Your task to perform on an android device: Toggle the flashlight Image 0: 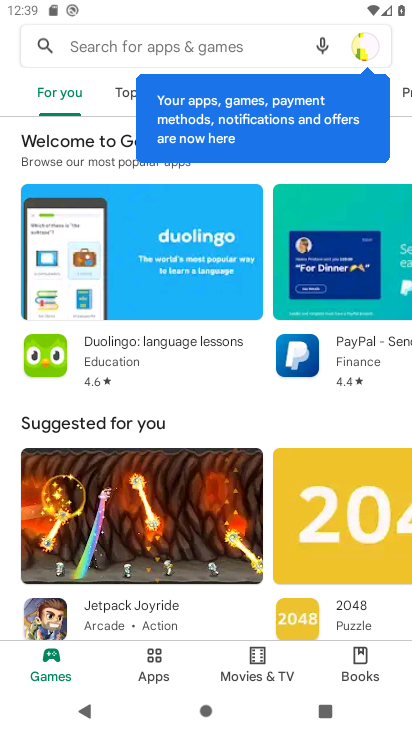
Step 0: press home button
Your task to perform on an android device: Toggle the flashlight Image 1: 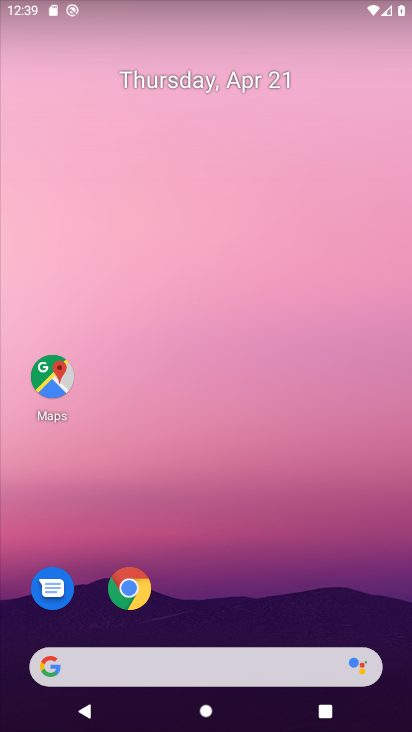
Step 1: drag from (215, 551) to (201, 5)
Your task to perform on an android device: Toggle the flashlight Image 2: 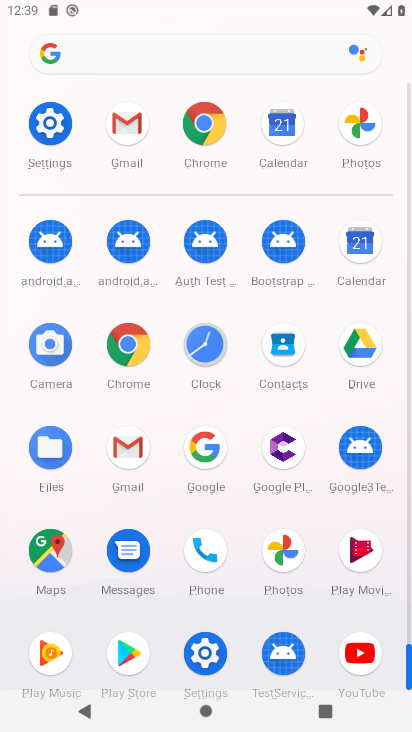
Step 2: drag from (235, 7) to (263, 500)
Your task to perform on an android device: Toggle the flashlight Image 3: 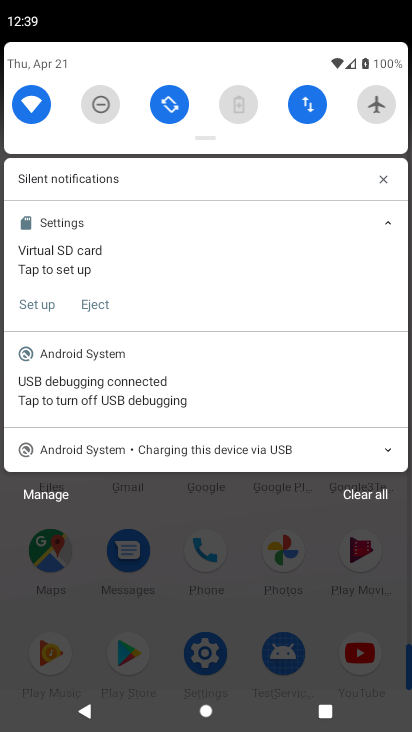
Step 3: click (192, 606)
Your task to perform on an android device: Toggle the flashlight Image 4: 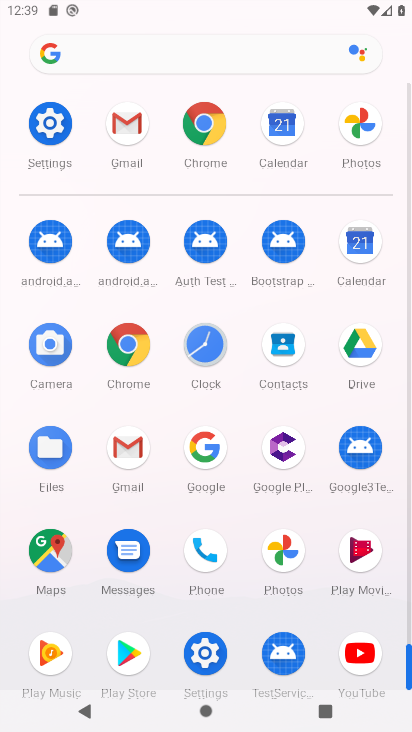
Step 4: click (207, 643)
Your task to perform on an android device: Toggle the flashlight Image 5: 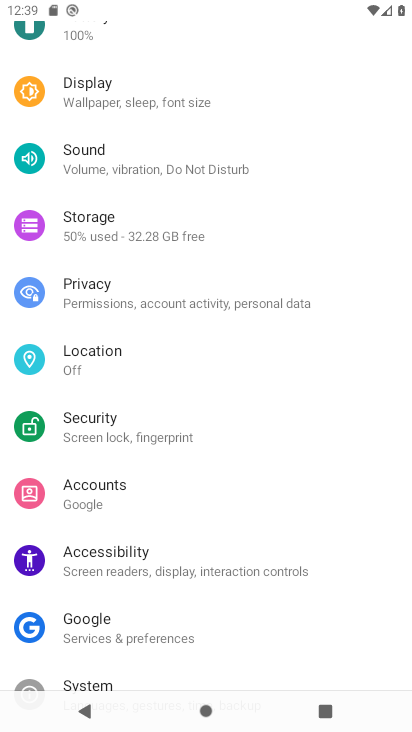
Step 5: drag from (166, 112) to (175, 603)
Your task to perform on an android device: Toggle the flashlight Image 6: 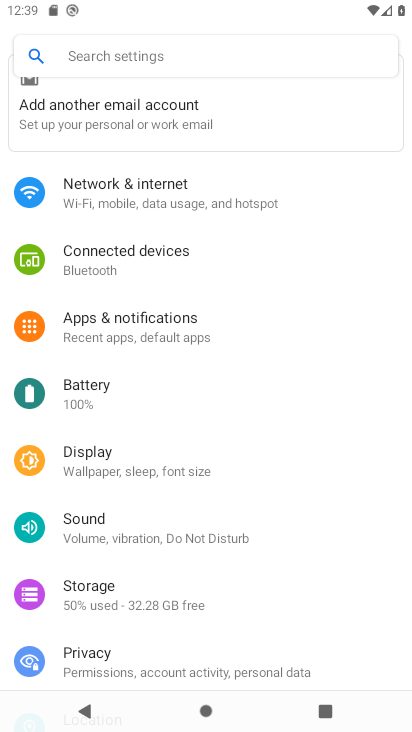
Step 6: click (146, 49)
Your task to perform on an android device: Toggle the flashlight Image 7: 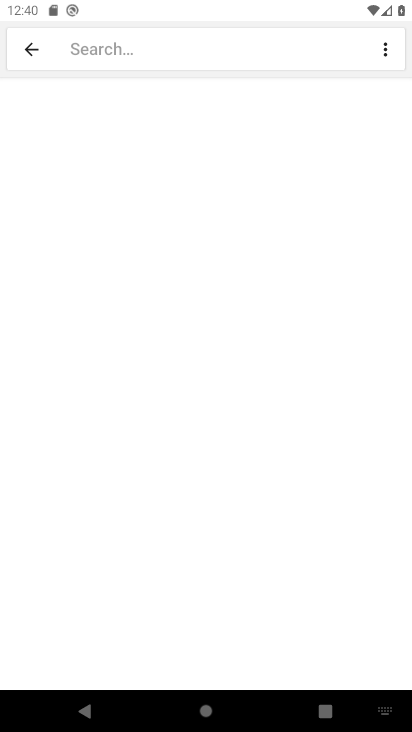
Step 7: type "flash"
Your task to perform on an android device: Toggle the flashlight Image 8: 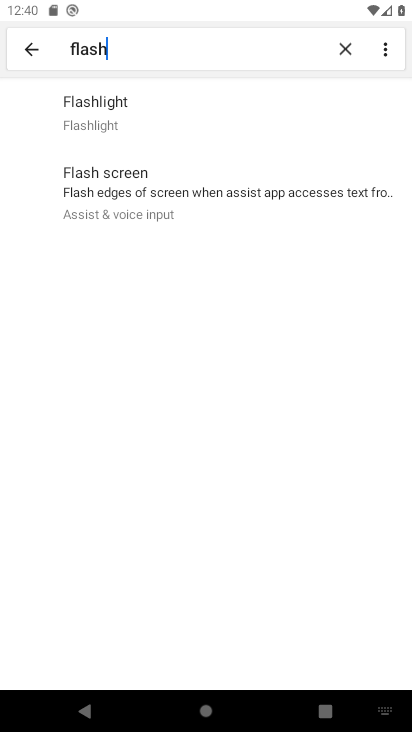
Step 8: click (178, 113)
Your task to perform on an android device: Toggle the flashlight Image 9: 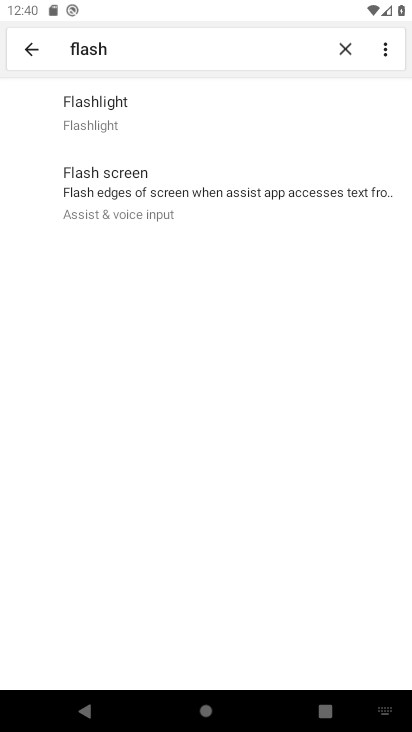
Step 9: task complete